Your task to perform on an android device: Open display settings Image 0: 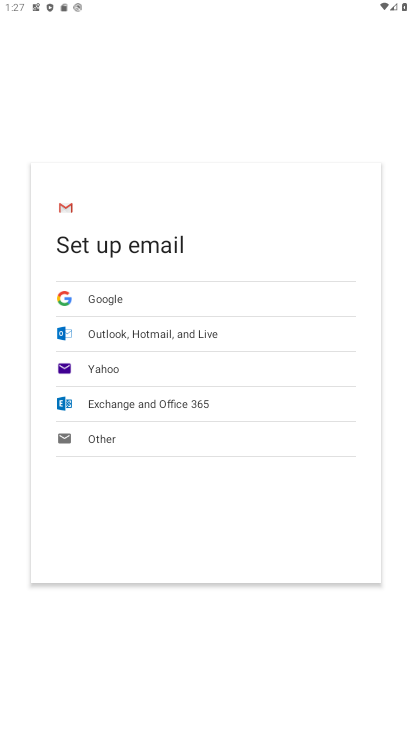
Step 0: press home button
Your task to perform on an android device: Open display settings Image 1: 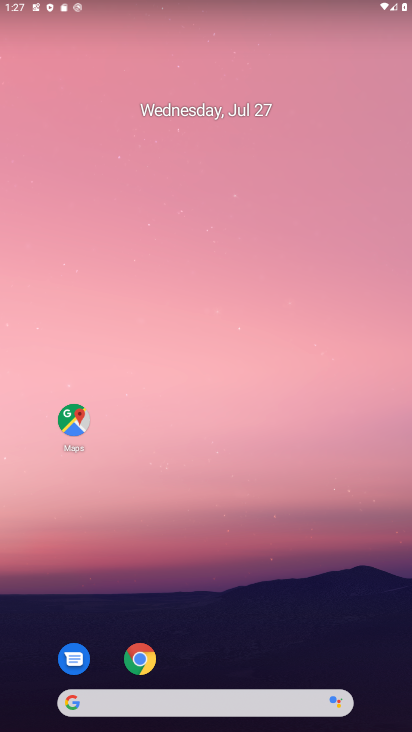
Step 1: drag from (266, 619) to (239, 96)
Your task to perform on an android device: Open display settings Image 2: 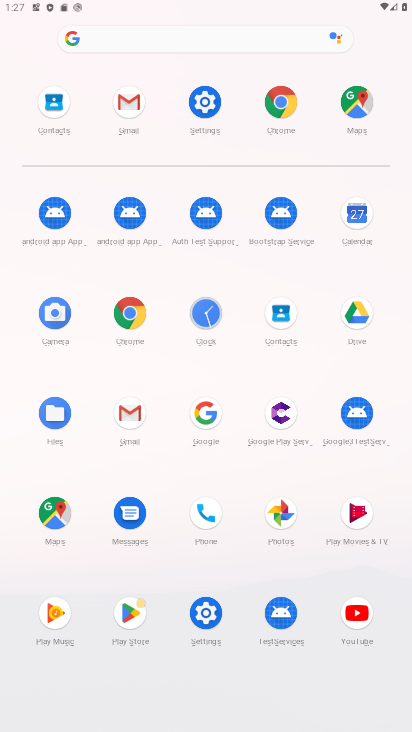
Step 2: click (188, 105)
Your task to perform on an android device: Open display settings Image 3: 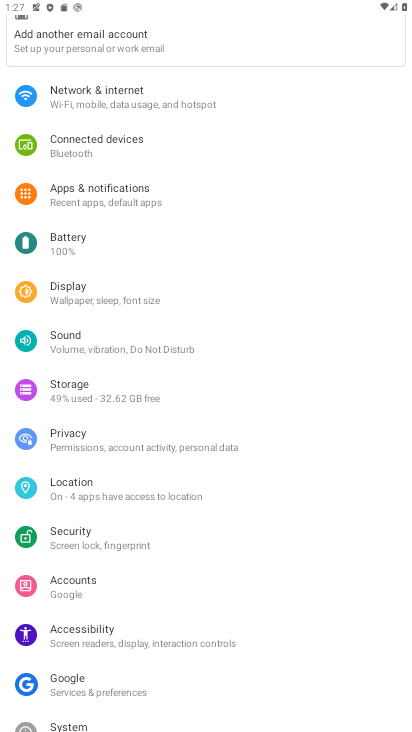
Step 3: click (93, 291)
Your task to perform on an android device: Open display settings Image 4: 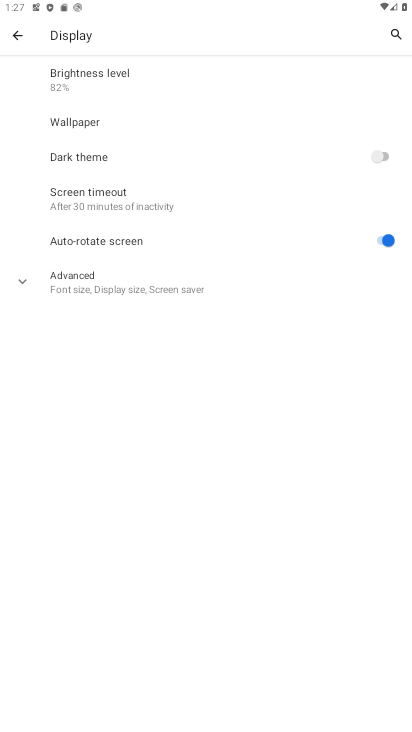
Step 4: task complete